Your task to perform on an android device: open a bookmark in the chrome app Image 0: 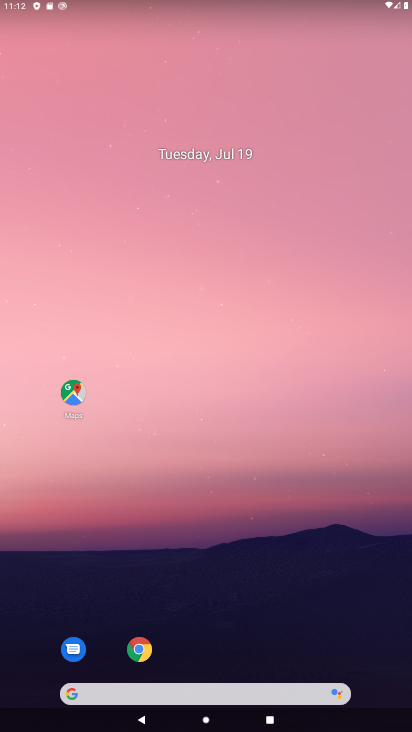
Step 0: drag from (244, 558) to (289, 180)
Your task to perform on an android device: open a bookmark in the chrome app Image 1: 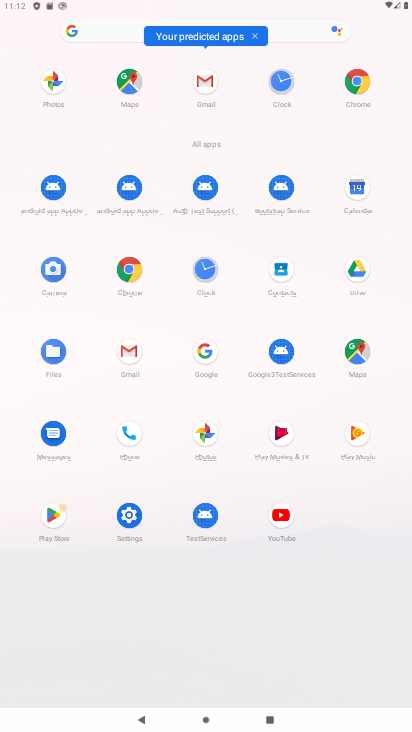
Step 1: click (131, 272)
Your task to perform on an android device: open a bookmark in the chrome app Image 2: 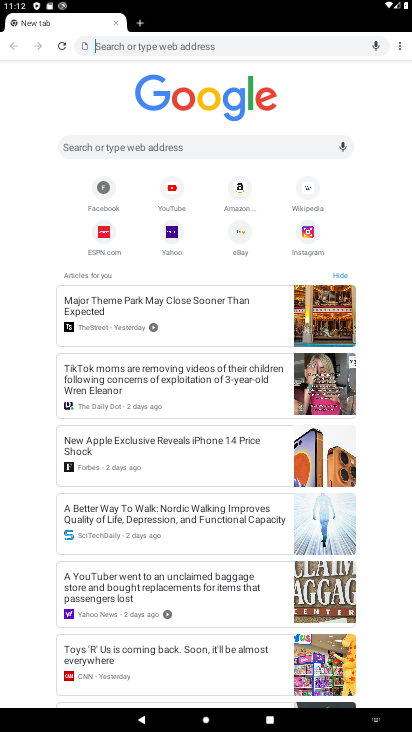
Step 2: drag from (398, 44) to (362, 89)
Your task to perform on an android device: open a bookmark in the chrome app Image 3: 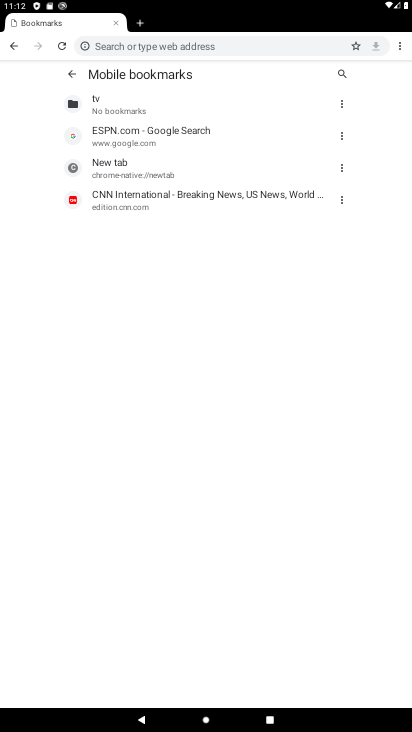
Step 3: click (177, 200)
Your task to perform on an android device: open a bookmark in the chrome app Image 4: 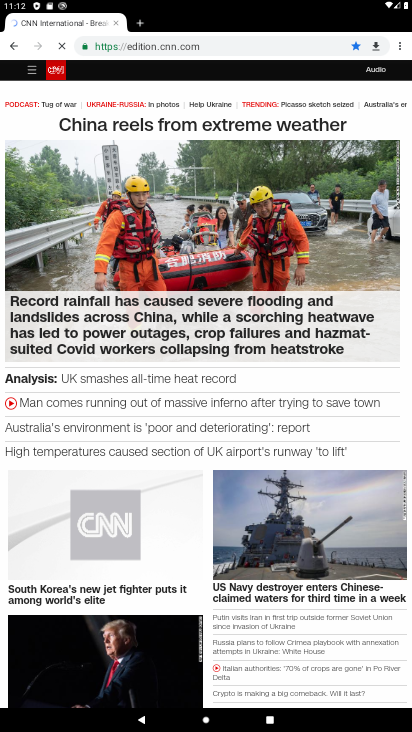
Step 4: task complete